Your task to perform on an android device: Go to location settings Image 0: 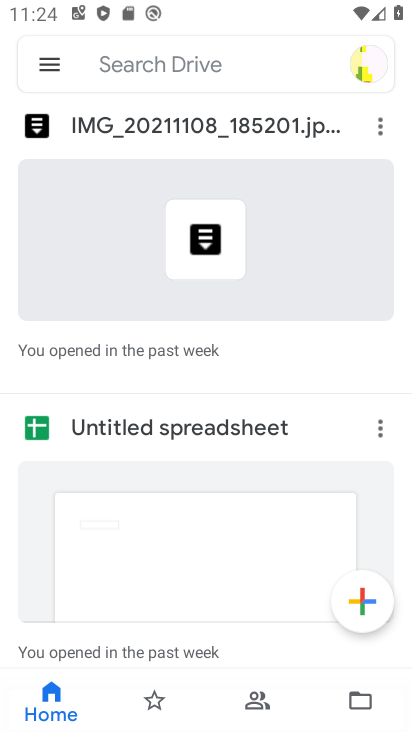
Step 0: press home button
Your task to perform on an android device: Go to location settings Image 1: 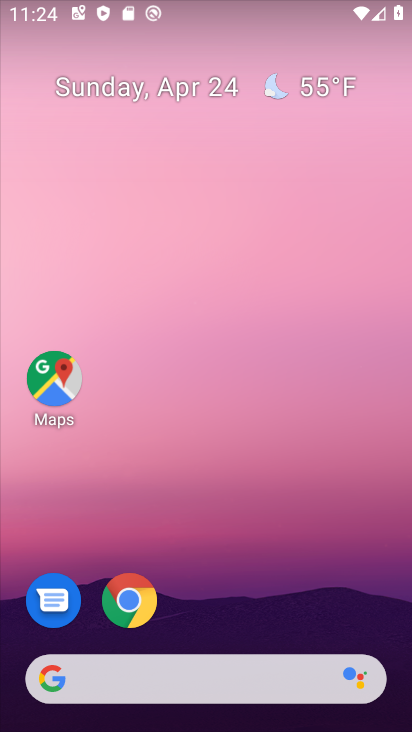
Step 1: drag from (285, 627) to (205, 12)
Your task to perform on an android device: Go to location settings Image 2: 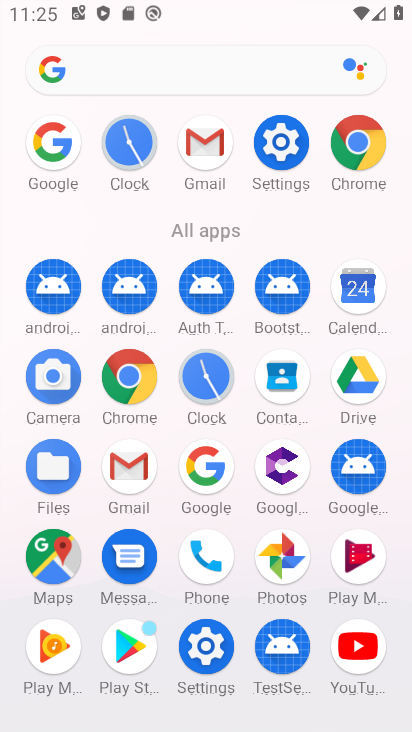
Step 2: click (285, 151)
Your task to perform on an android device: Go to location settings Image 3: 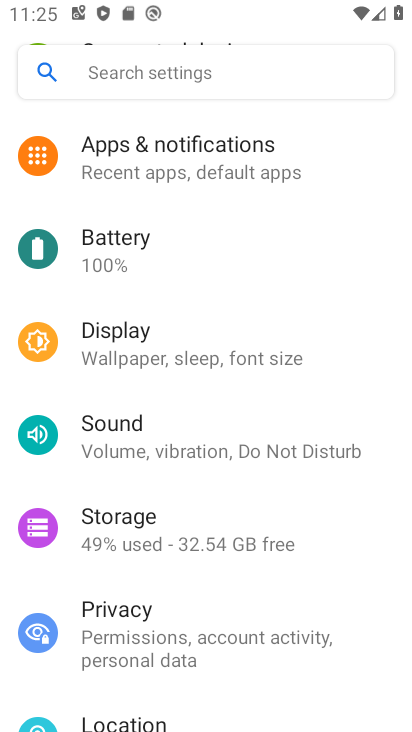
Step 3: click (122, 716)
Your task to perform on an android device: Go to location settings Image 4: 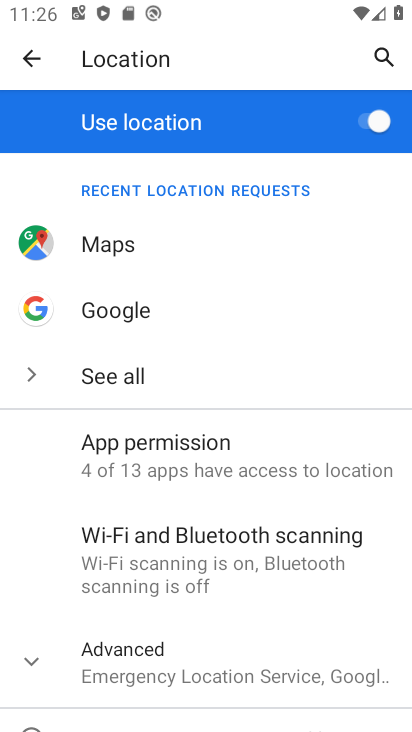
Step 4: task complete